Your task to perform on an android device: Turn on the flashlight Image 0: 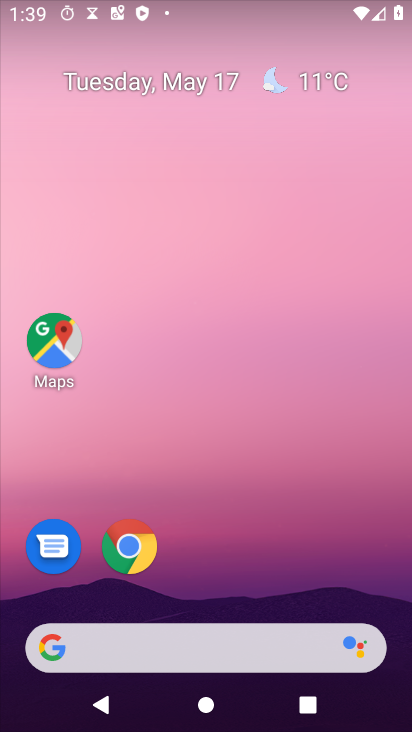
Step 0: press home button
Your task to perform on an android device: Turn on the flashlight Image 1: 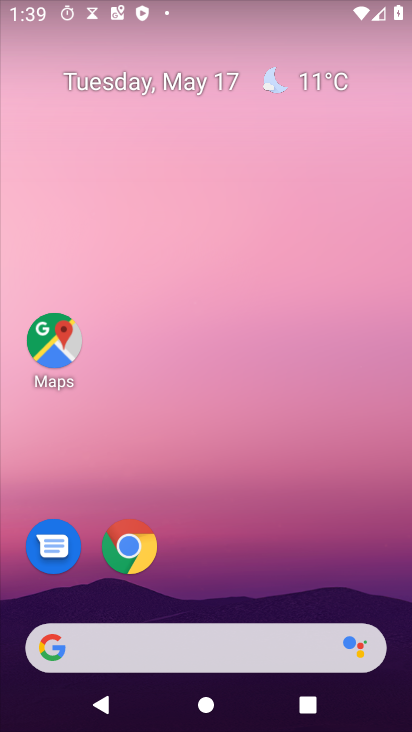
Step 1: task complete